Your task to perform on an android device: toggle javascript in the chrome app Image 0: 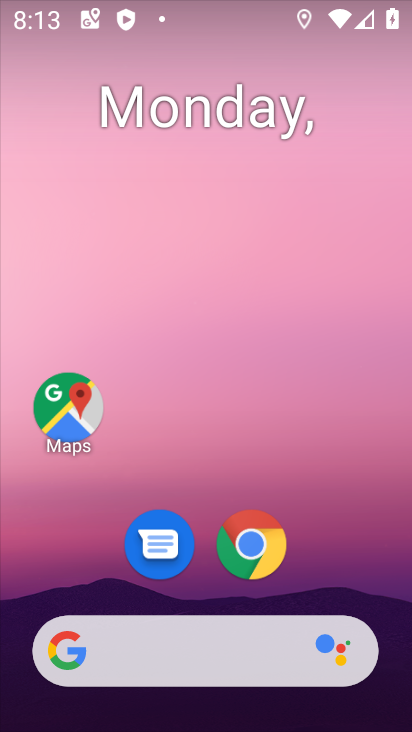
Step 0: click (258, 531)
Your task to perform on an android device: toggle javascript in the chrome app Image 1: 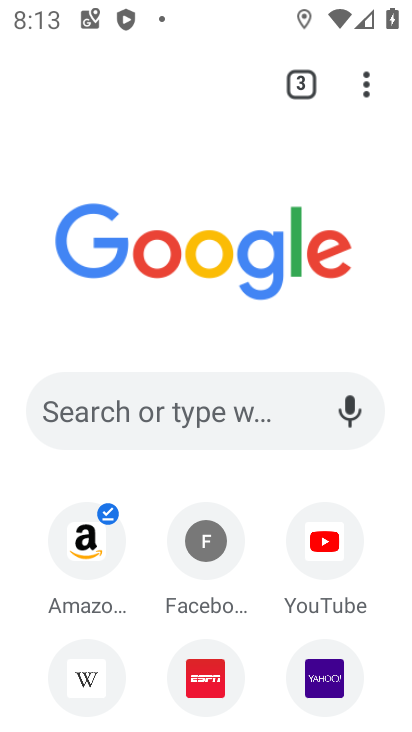
Step 1: click (371, 92)
Your task to perform on an android device: toggle javascript in the chrome app Image 2: 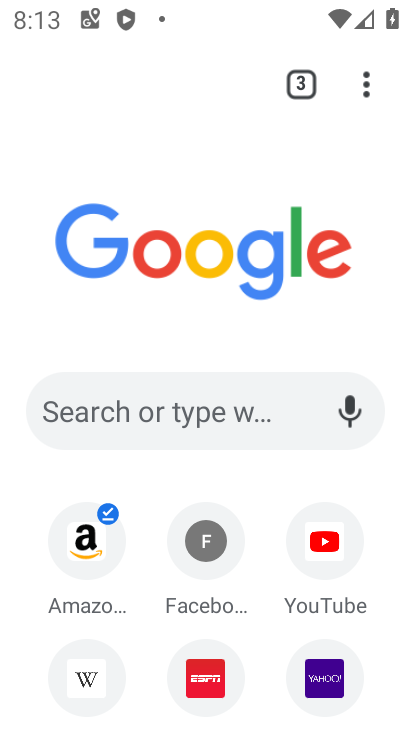
Step 2: click (361, 79)
Your task to perform on an android device: toggle javascript in the chrome app Image 3: 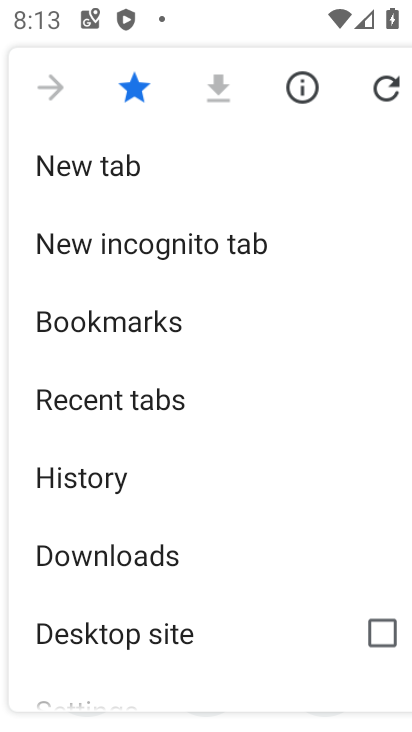
Step 3: drag from (252, 646) to (217, 131)
Your task to perform on an android device: toggle javascript in the chrome app Image 4: 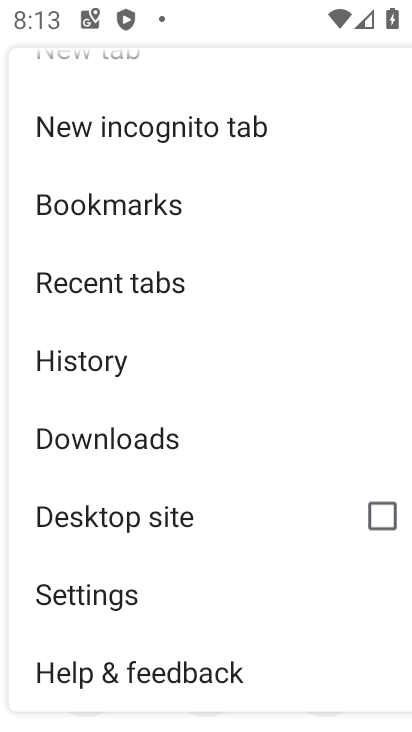
Step 4: click (97, 577)
Your task to perform on an android device: toggle javascript in the chrome app Image 5: 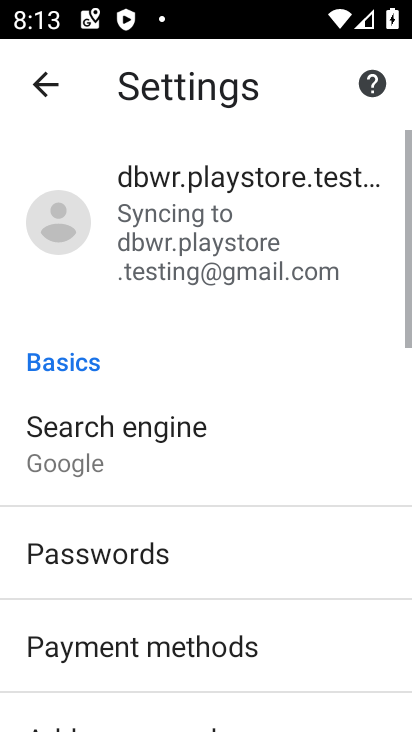
Step 5: drag from (101, 572) to (22, 37)
Your task to perform on an android device: toggle javascript in the chrome app Image 6: 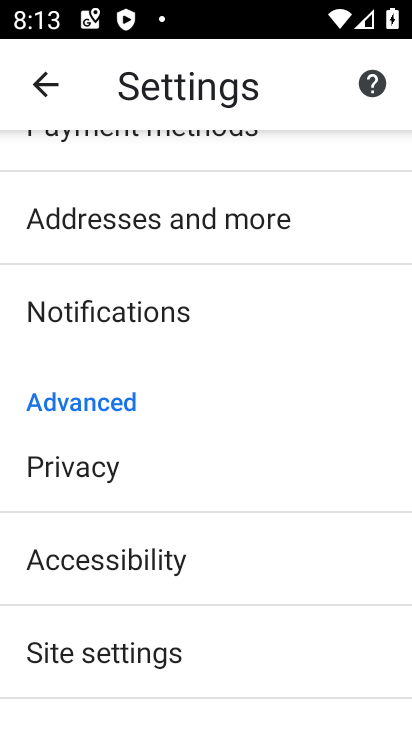
Step 6: click (93, 650)
Your task to perform on an android device: toggle javascript in the chrome app Image 7: 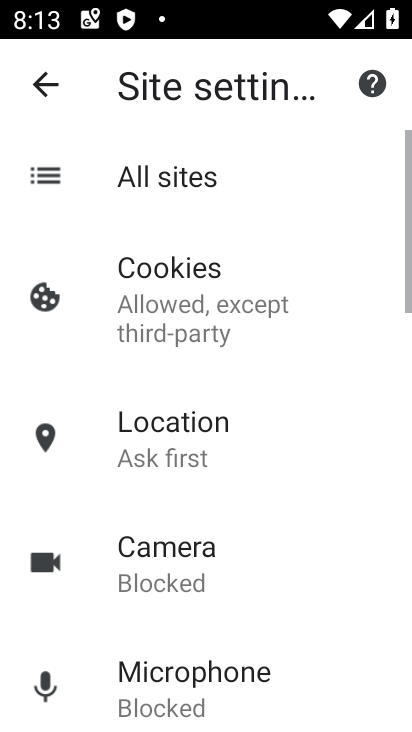
Step 7: drag from (105, 653) to (5, 147)
Your task to perform on an android device: toggle javascript in the chrome app Image 8: 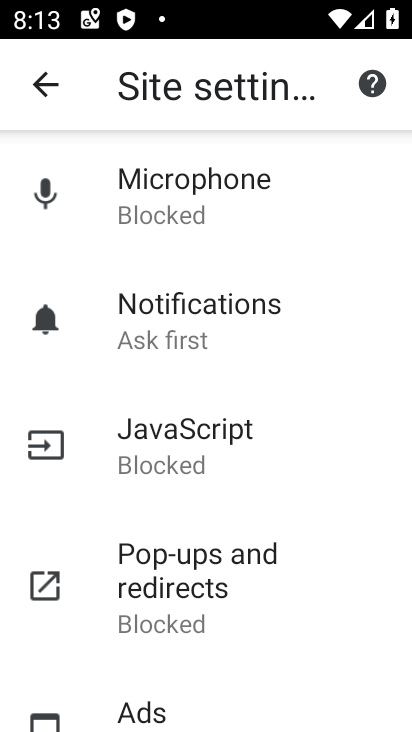
Step 8: click (176, 464)
Your task to perform on an android device: toggle javascript in the chrome app Image 9: 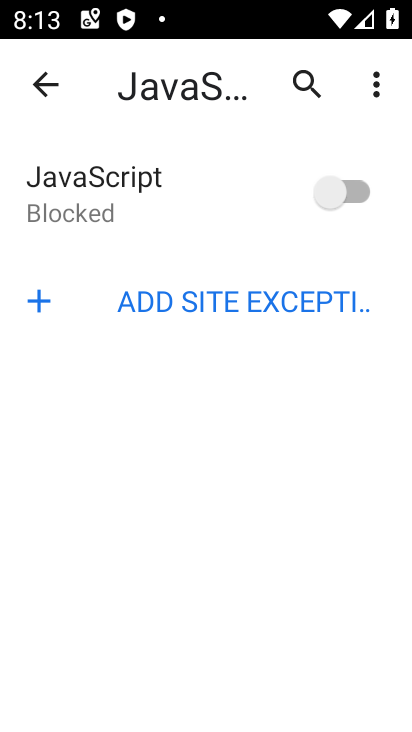
Step 9: click (358, 199)
Your task to perform on an android device: toggle javascript in the chrome app Image 10: 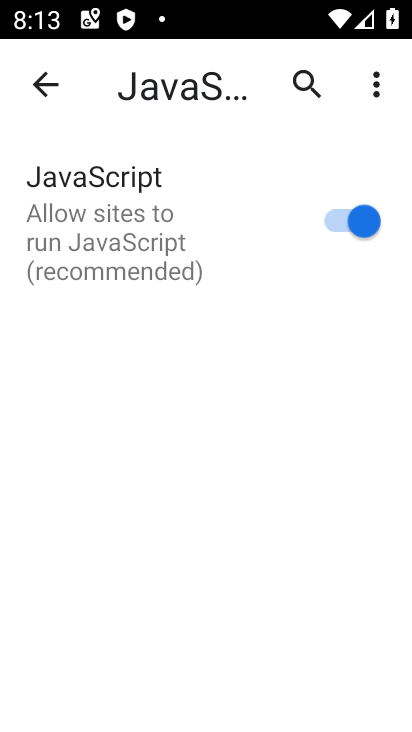
Step 10: task complete